Your task to perform on an android device: Open Yahoo.com Image 0: 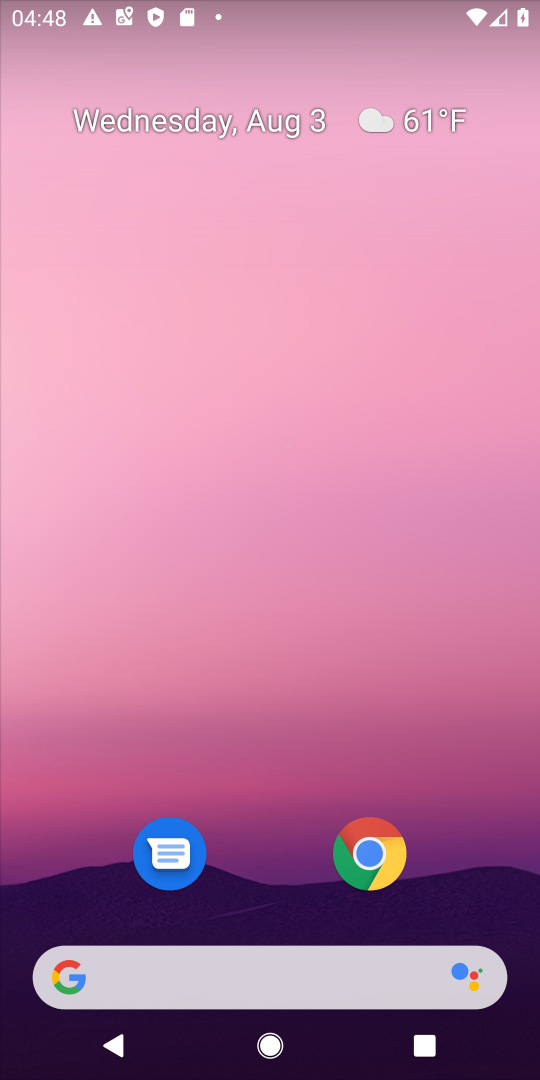
Step 0: click (361, 859)
Your task to perform on an android device: Open Yahoo.com Image 1: 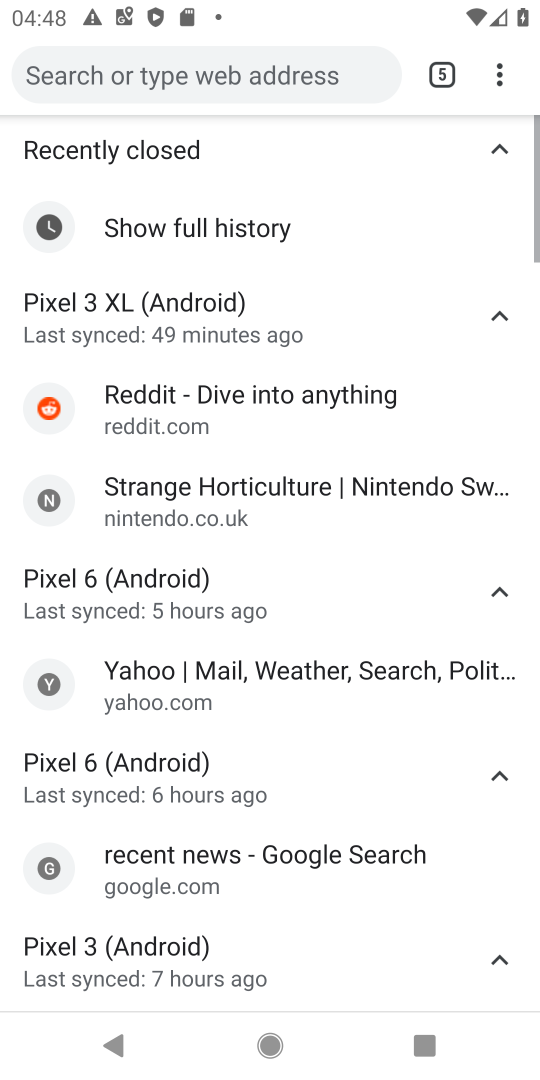
Step 1: click (497, 88)
Your task to perform on an android device: Open Yahoo.com Image 2: 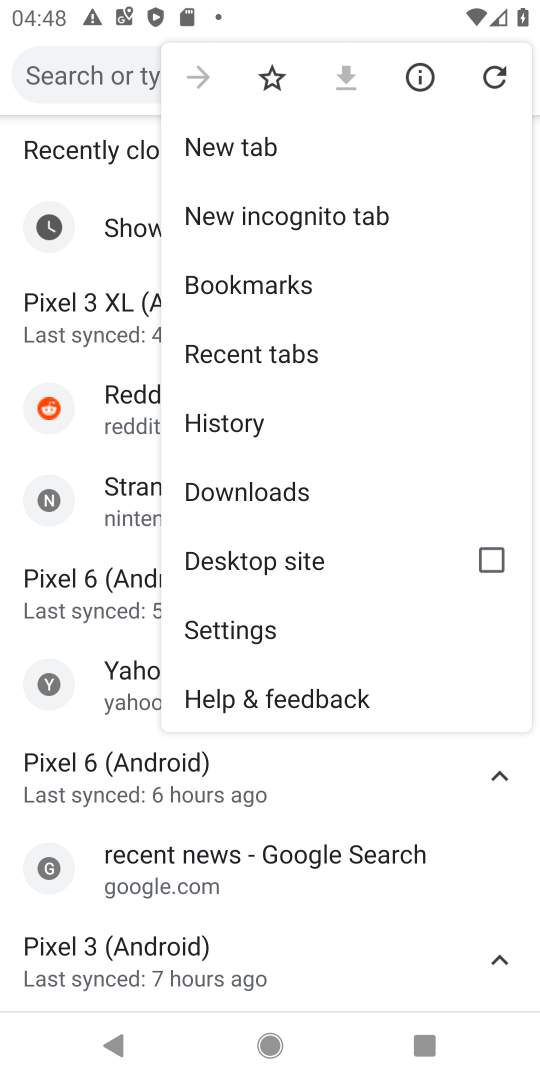
Step 2: click (247, 142)
Your task to perform on an android device: Open Yahoo.com Image 3: 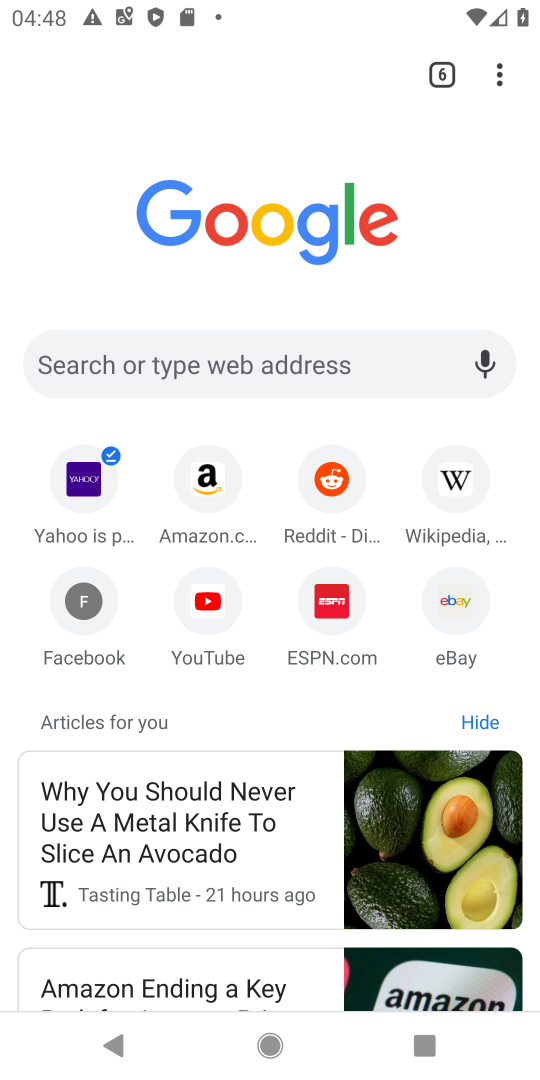
Step 3: click (86, 466)
Your task to perform on an android device: Open Yahoo.com Image 4: 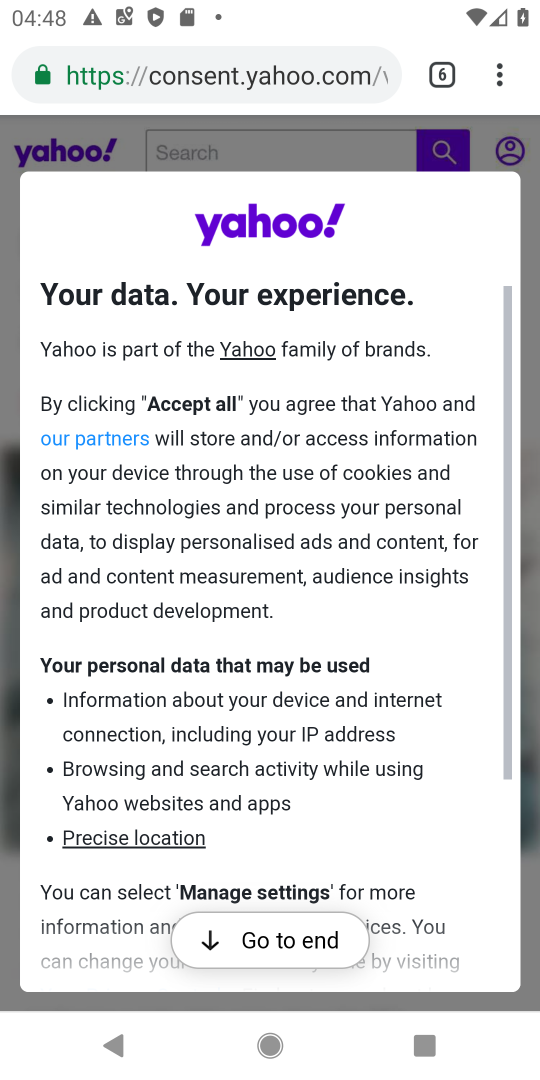
Step 4: task complete